Your task to perform on an android device: change notification settings in the gmail app Image 0: 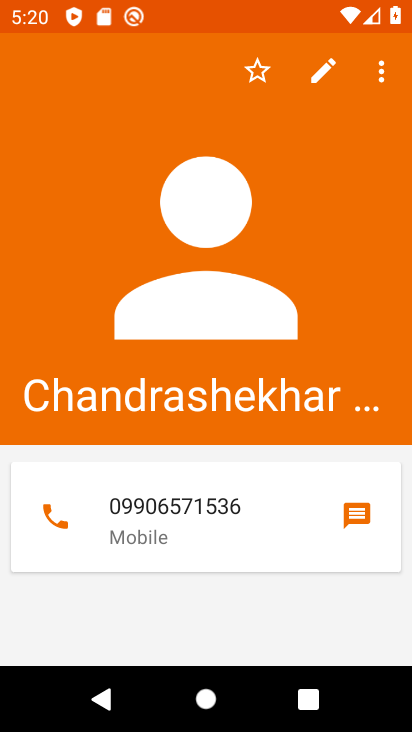
Step 0: press home button
Your task to perform on an android device: change notification settings in the gmail app Image 1: 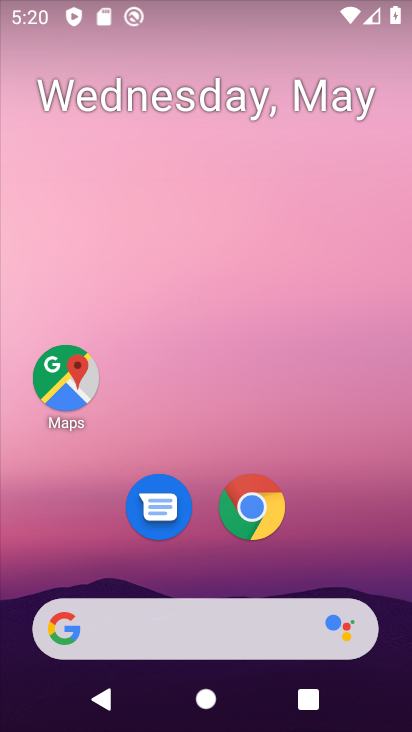
Step 1: drag from (345, 560) to (244, 135)
Your task to perform on an android device: change notification settings in the gmail app Image 2: 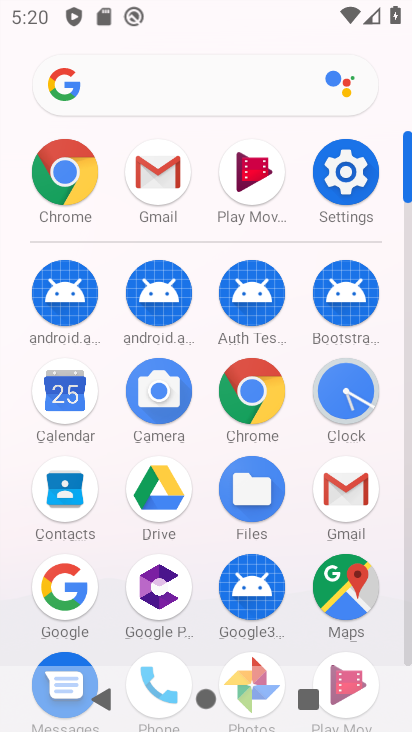
Step 2: click (158, 171)
Your task to perform on an android device: change notification settings in the gmail app Image 3: 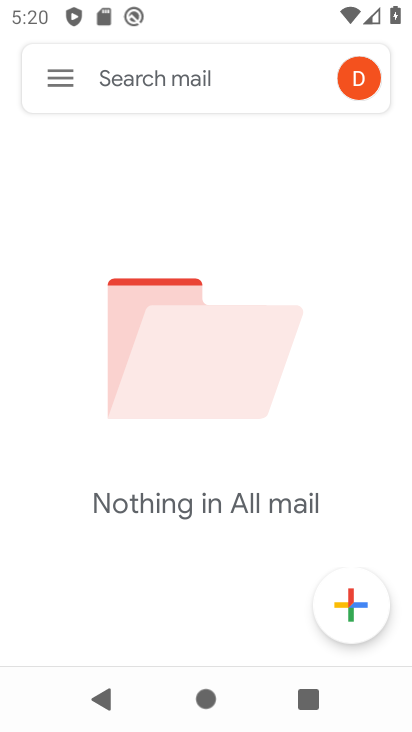
Step 3: click (66, 70)
Your task to perform on an android device: change notification settings in the gmail app Image 4: 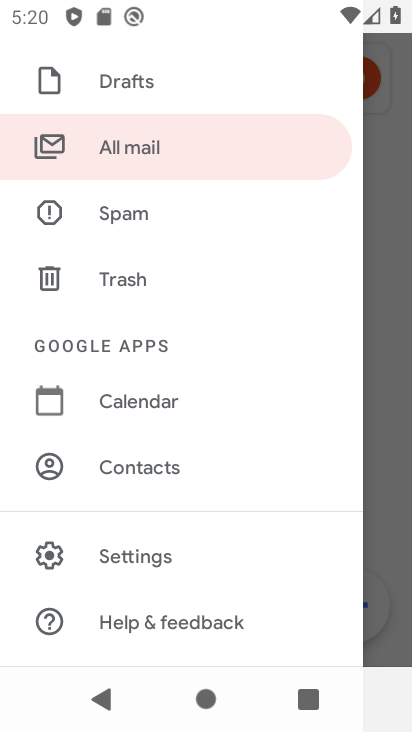
Step 4: click (138, 557)
Your task to perform on an android device: change notification settings in the gmail app Image 5: 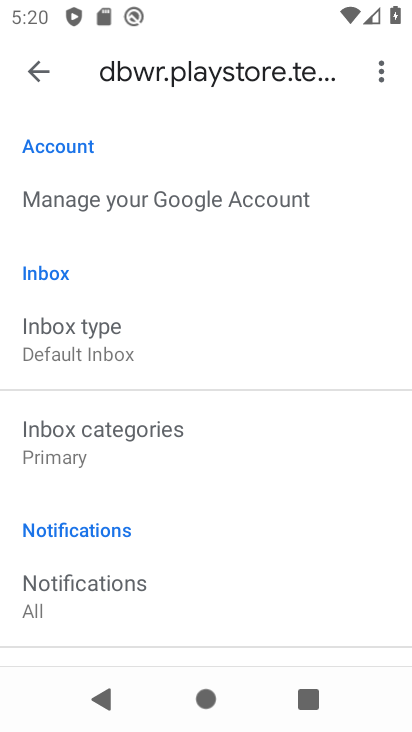
Step 5: drag from (101, 475) to (141, 400)
Your task to perform on an android device: change notification settings in the gmail app Image 6: 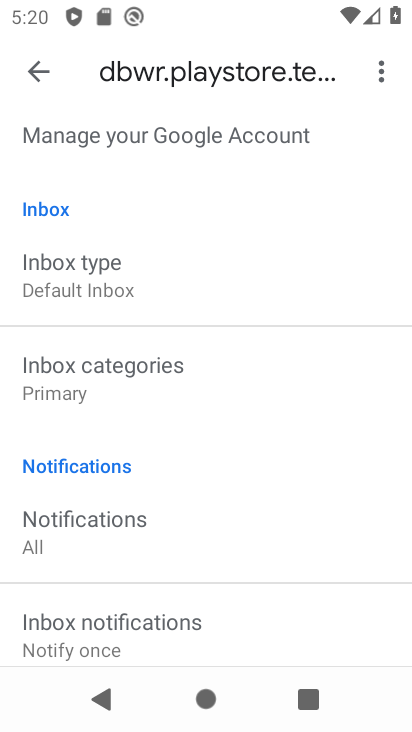
Step 6: drag from (83, 550) to (155, 446)
Your task to perform on an android device: change notification settings in the gmail app Image 7: 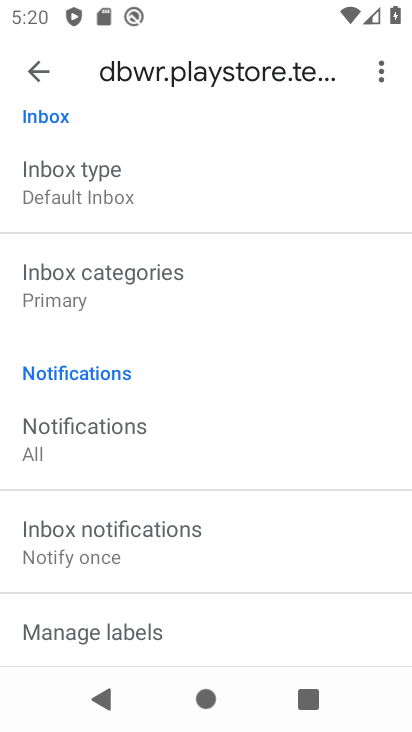
Step 7: drag from (92, 604) to (174, 485)
Your task to perform on an android device: change notification settings in the gmail app Image 8: 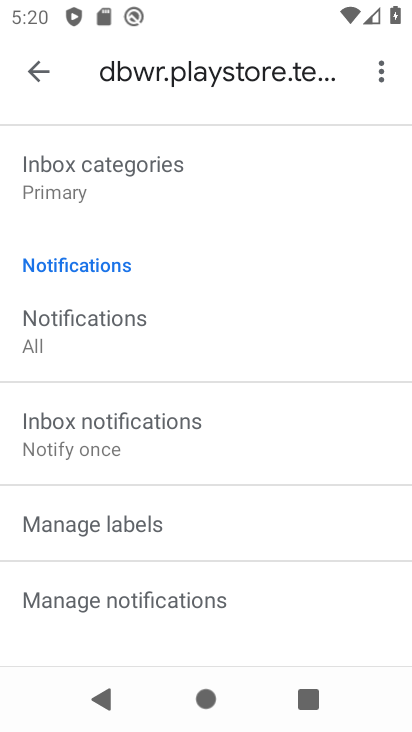
Step 8: drag from (113, 585) to (198, 492)
Your task to perform on an android device: change notification settings in the gmail app Image 9: 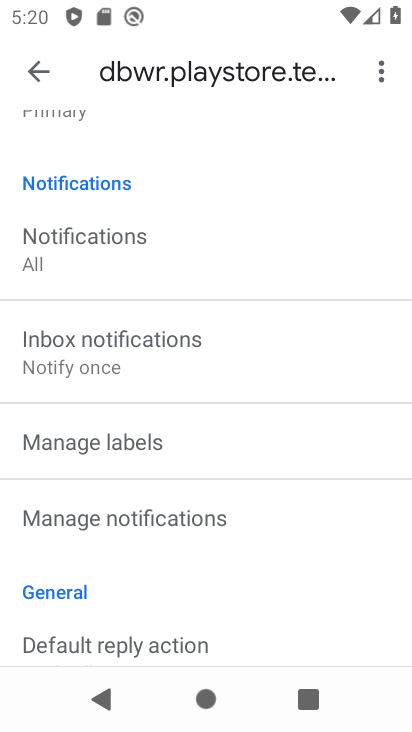
Step 9: click (150, 526)
Your task to perform on an android device: change notification settings in the gmail app Image 10: 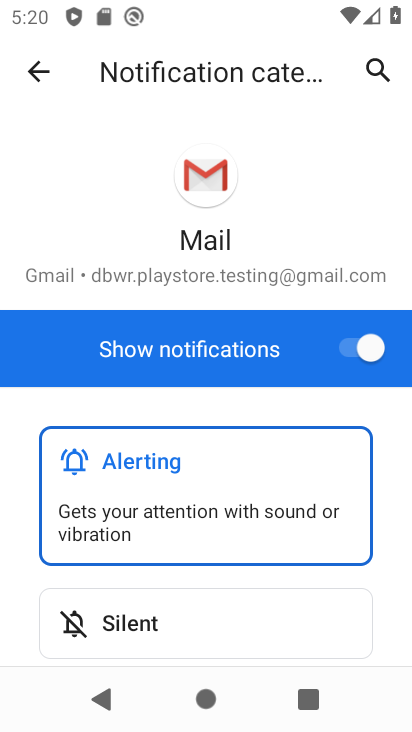
Step 10: click (362, 354)
Your task to perform on an android device: change notification settings in the gmail app Image 11: 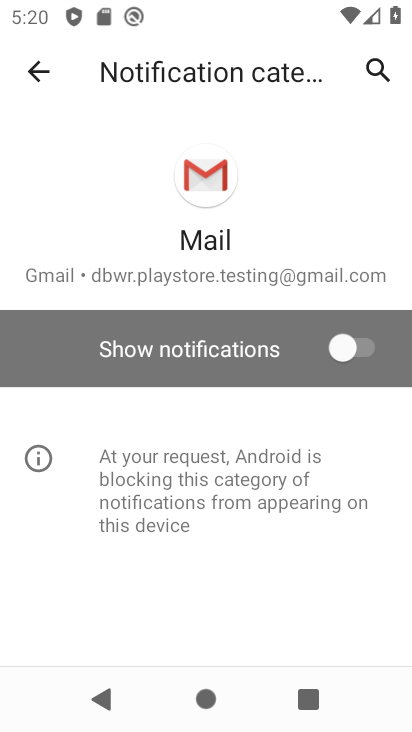
Step 11: task complete